Your task to perform on an android device: Go to Maps Image 0: 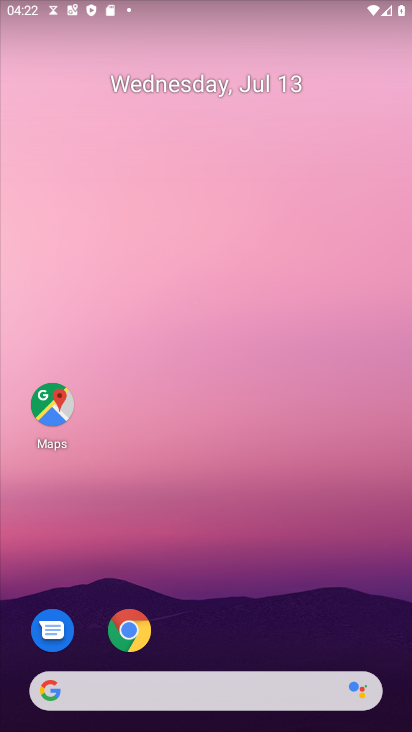
Step 0: drag from (326, 622) to (283, 7)
Your task to perform on an android device: Go to Maps Image 1: 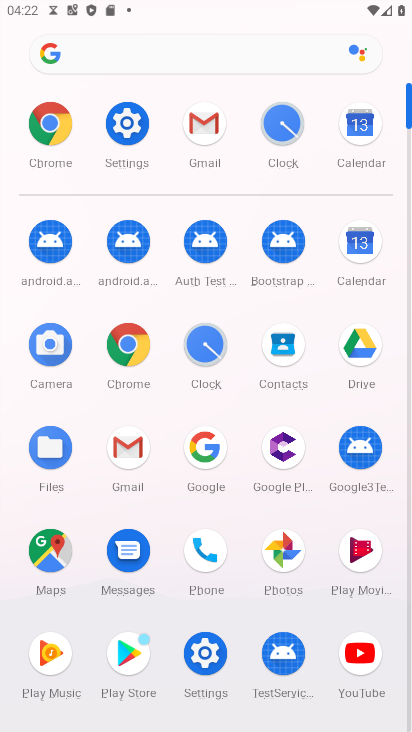
Step 1: click (46, 546)
Your task to perform on an android device: Go to Maps Image 2: 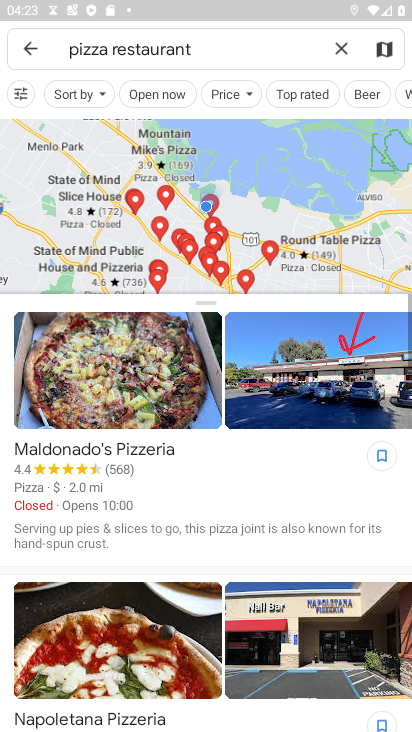
Step 2: task complete